Your task to perform on an android device: Is it going to rain tomorrow? Image 0: 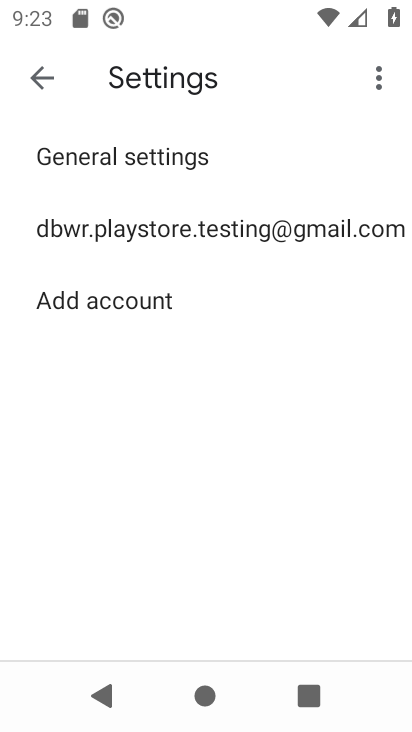
Step 0: press home button
Your task to perform on an android device: Is it going to rain tomorrow? Image 1: 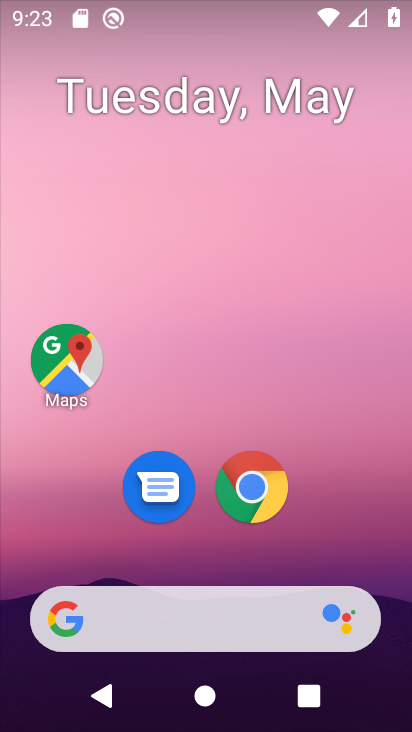
Step 1: click (71, 617)
Your task to perform on an android device: Is it going to rain tomorrow? Image 2: 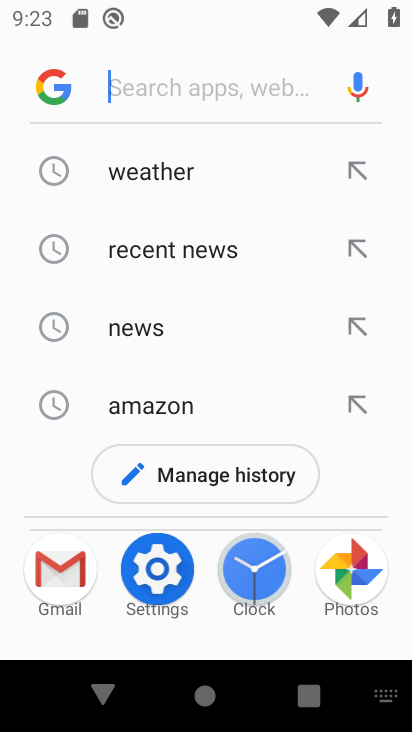
Step 2: click (165, 164)
Your task to perform on an android device: Is it going to rain tomorrow? Image 3: 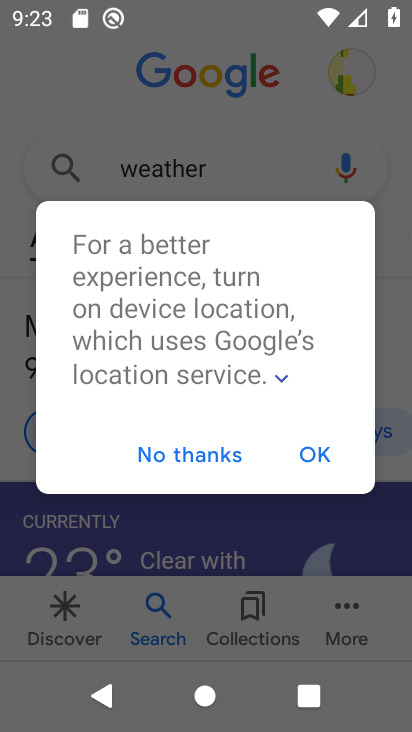
Step 3: click (309, 452)
Your task to perform on an android device: Is it going to rain tomorrow? Image 4: 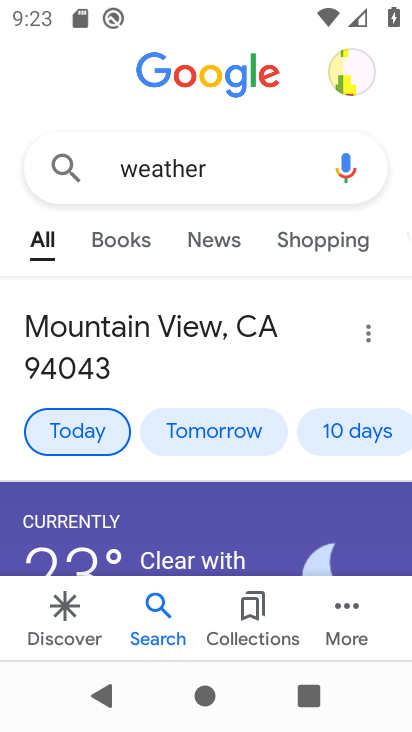
Step 4: click (216, 438)
Your task to perform on an android device: Is it going to rain tomorrow? Image 5: 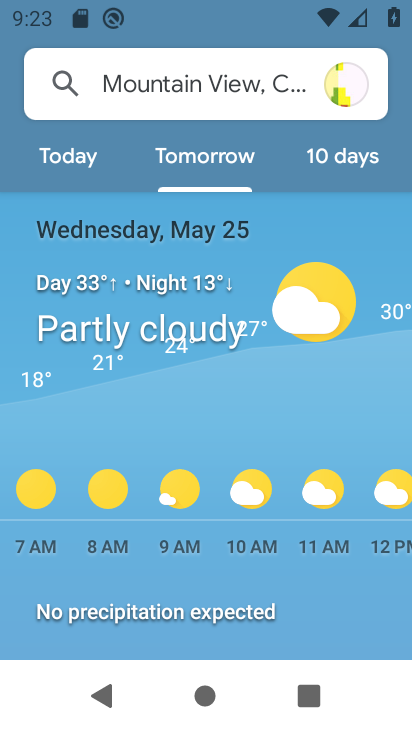
Step 5: task complete